Your task to perform on an android device: Show me productivity apps on the Play Store Image 0: 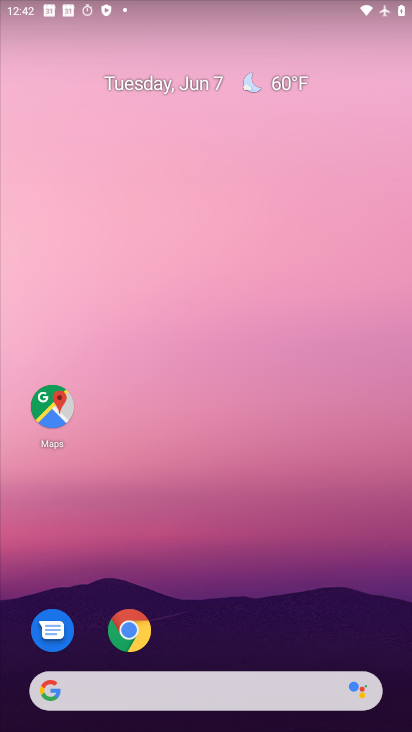
Step 0: drag from (282, 605) to (255, 23)
Your task to perform on an android device: Show me productivity apps on the Play Store Image 1: 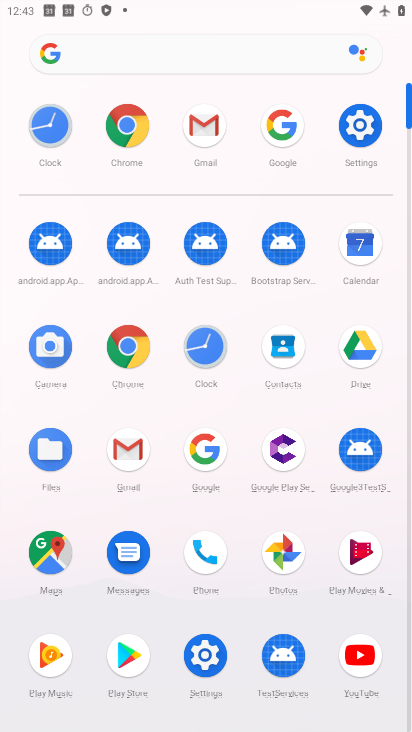
Step 1: click (142, 662)
Your task to perform on an android device: Show me productivity apps on the Play Store Image 2: 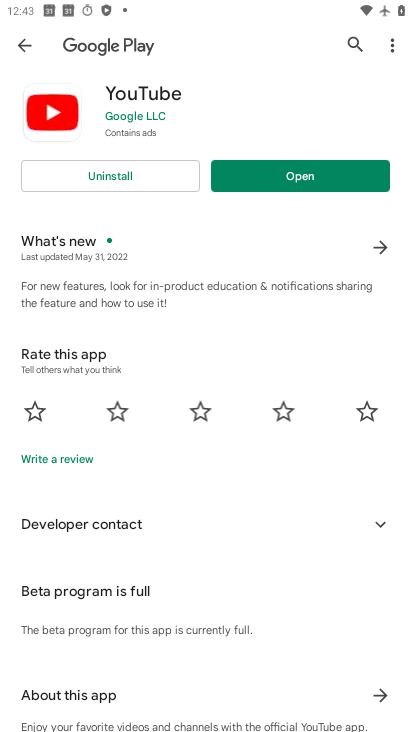
Step 2: press back button
Your task to perform on an android device: Show me productivity apps on the Play Store Image 3: 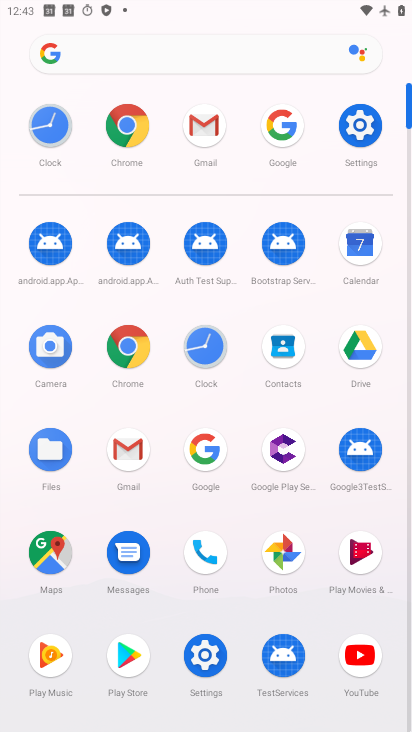
Step 3: click (146, 663)
Your task to perform on an android device: Show me productivity apps on the Play Store Image 4: 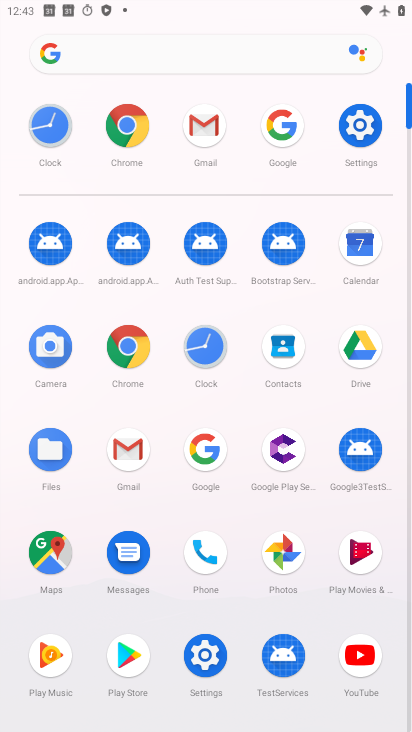
Step 4: click (132, 667)
Your task to perform on an android device: Show me productivity apps on the Play Store Image 5: 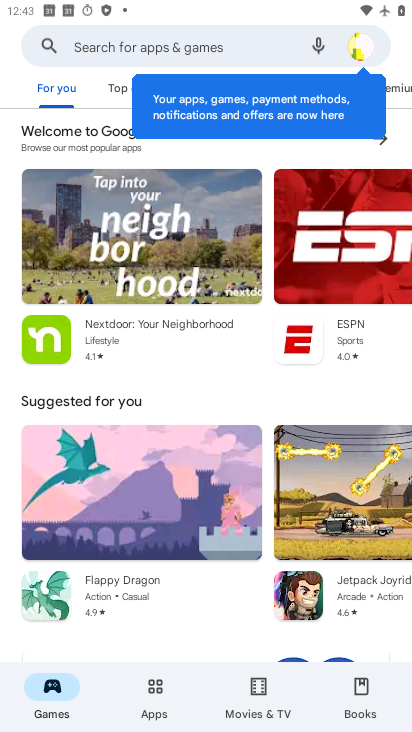
Step 5: task complete